Your task to perform on an android device: turn off sleep mode Image 0: 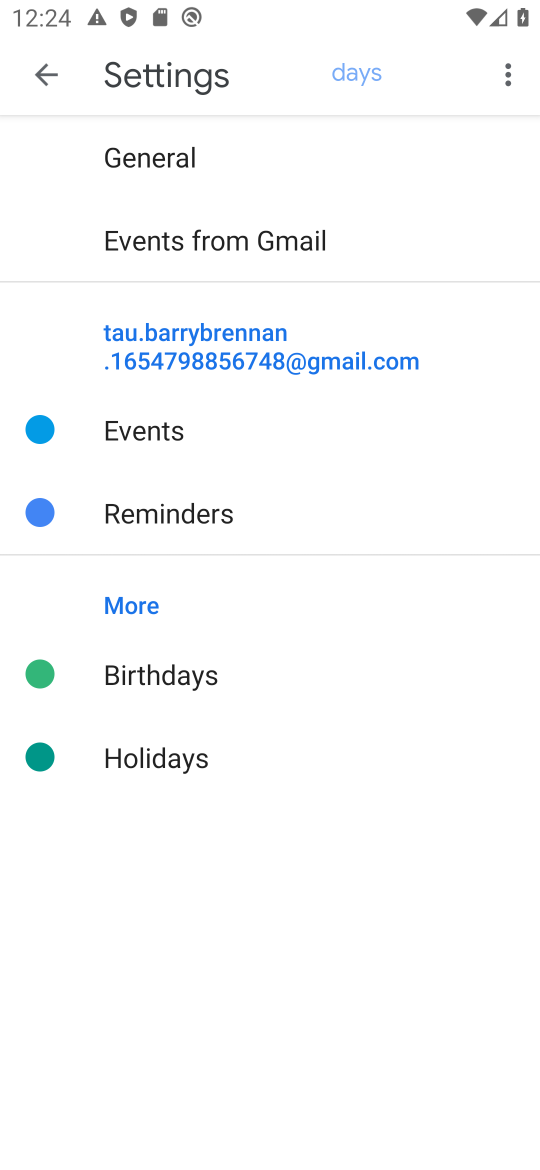
Step 0: press home button
Your task to perform on an android device: turn off sleep mode Image 1: 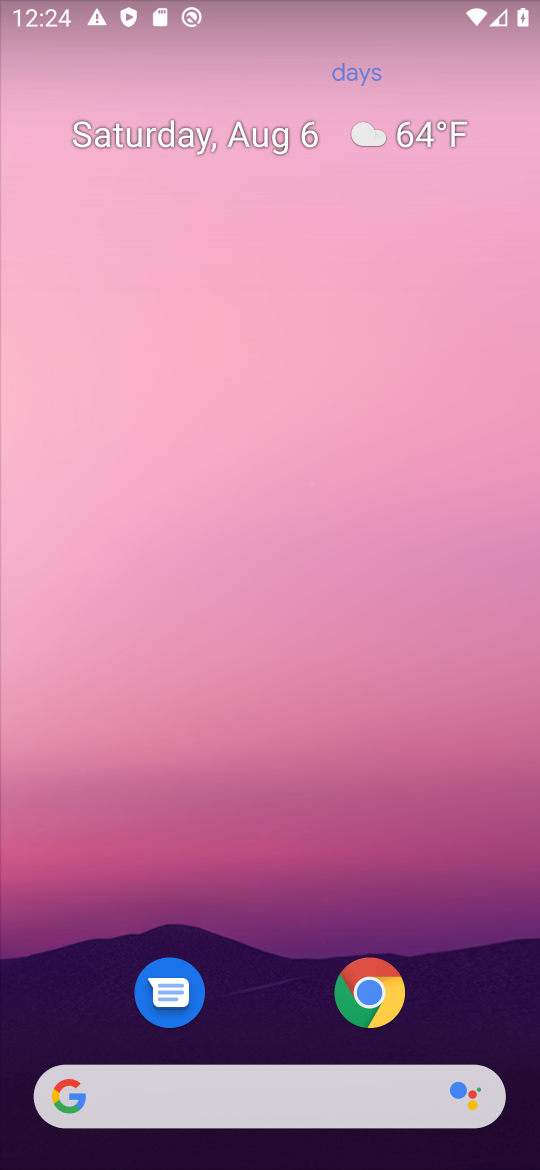
Step 1: drag from (316, 693) to (366, 8)
Your task to perform on an android device: turn off sleep mode Image 2: 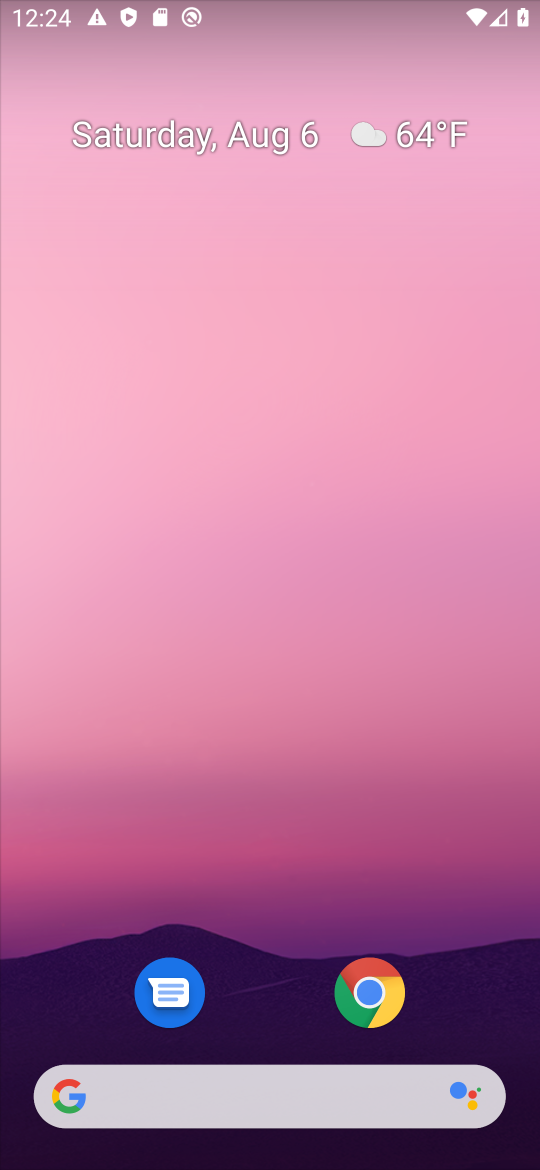
Step 2: drag from (306, 733) to (383, 0)
Your task to perform on an android device: turn off sleep mode Image 3: 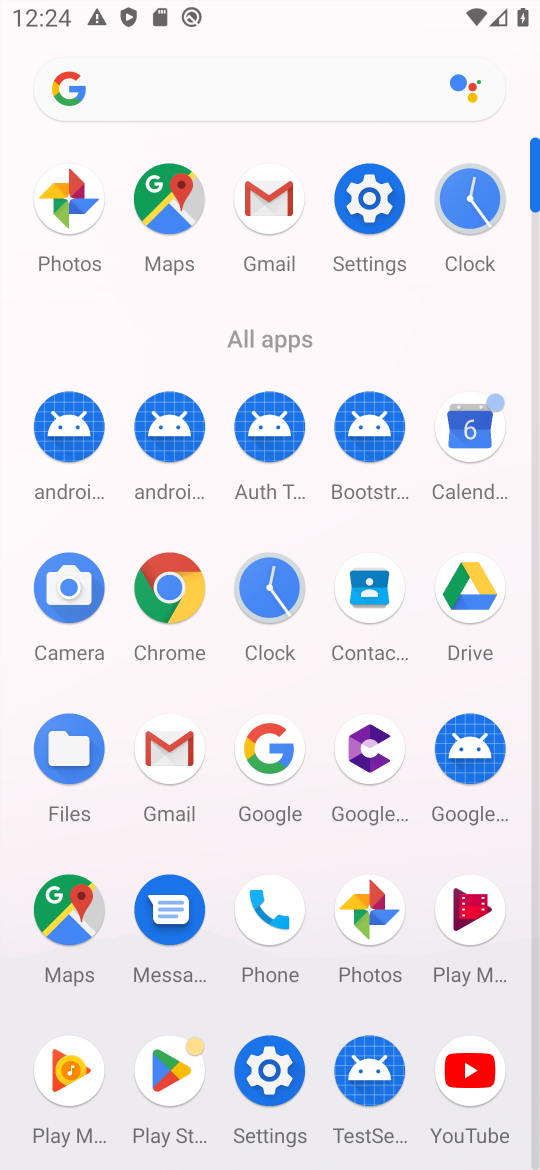
Step 3: click (373, 204)
Your task to perform on an android device: turn off sleep mode Image 4: 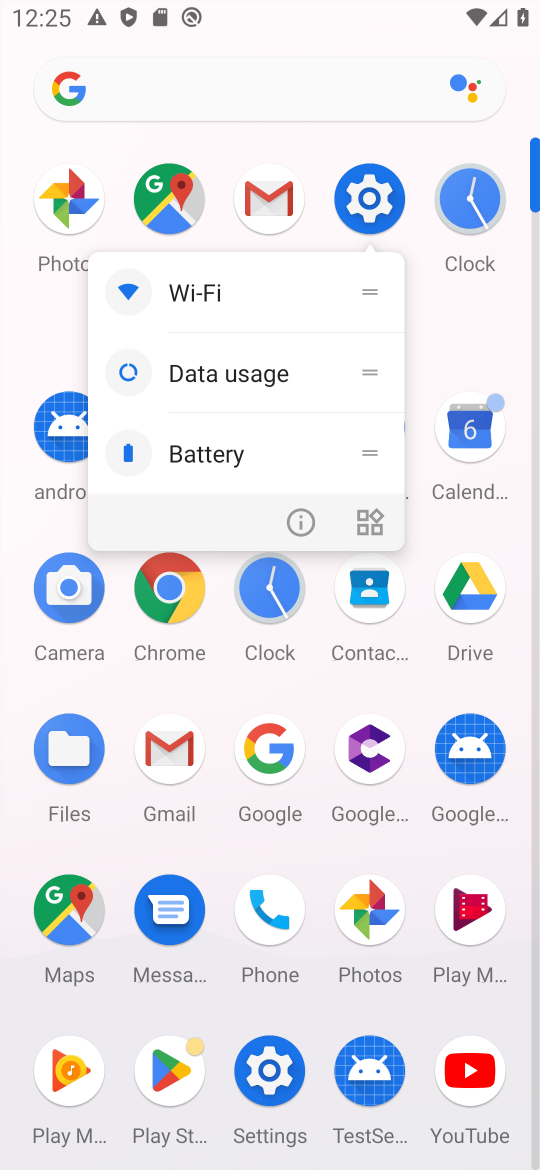
Step 4: click (370, 201)
Your task to perform on an android device: turn off sleep mode Image 5: 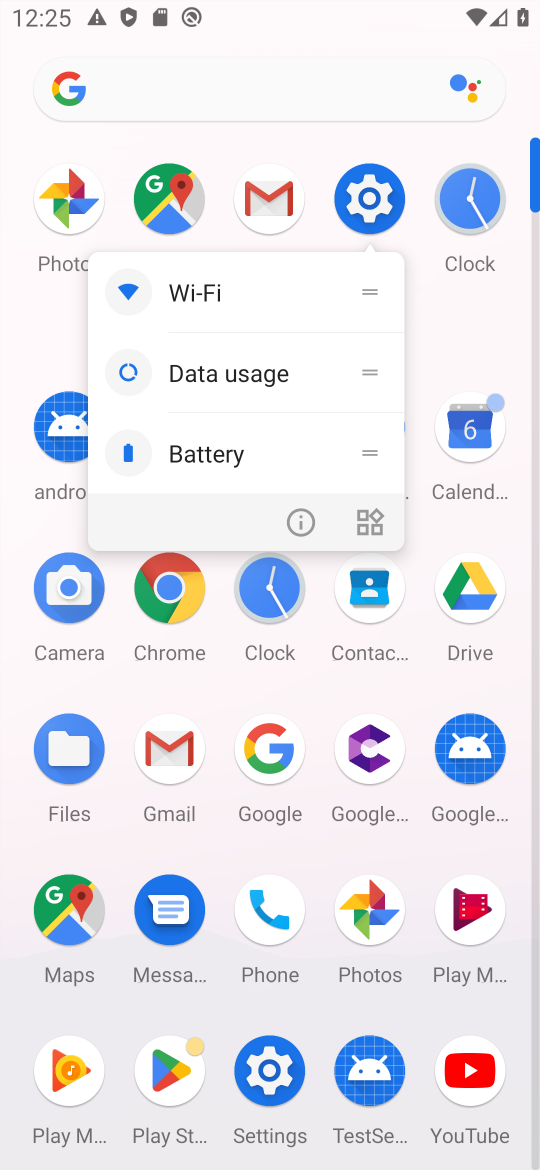
Step 5: click (369, 184)
Your task to perform on an android device: turn off sleep mode Image 6: 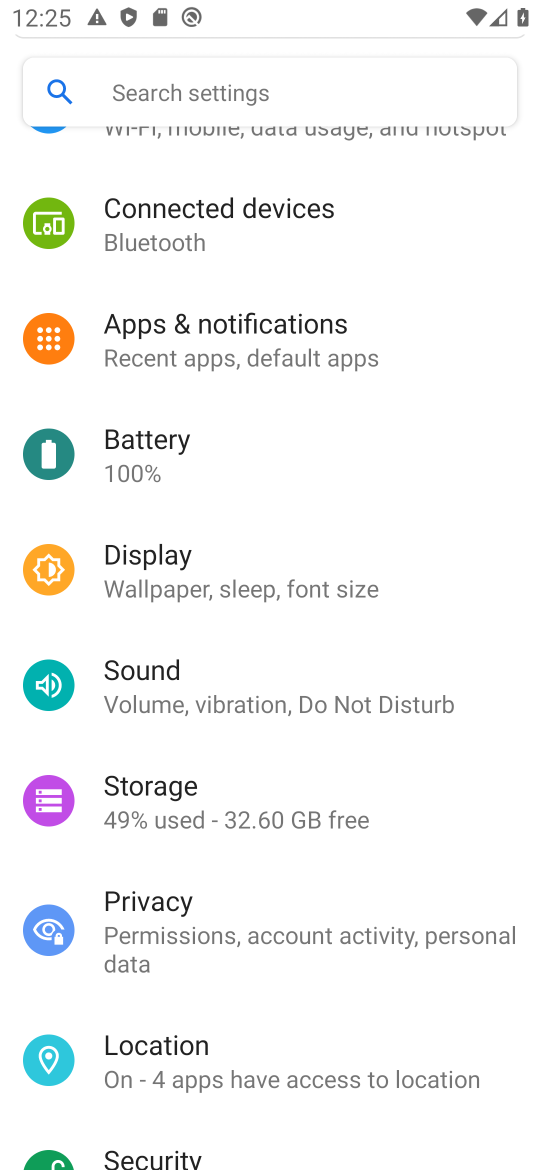
Step 6: drag from (409, 270) to (401, 902)
Your task to perform on an android device: turn off sleep mode Image 7: 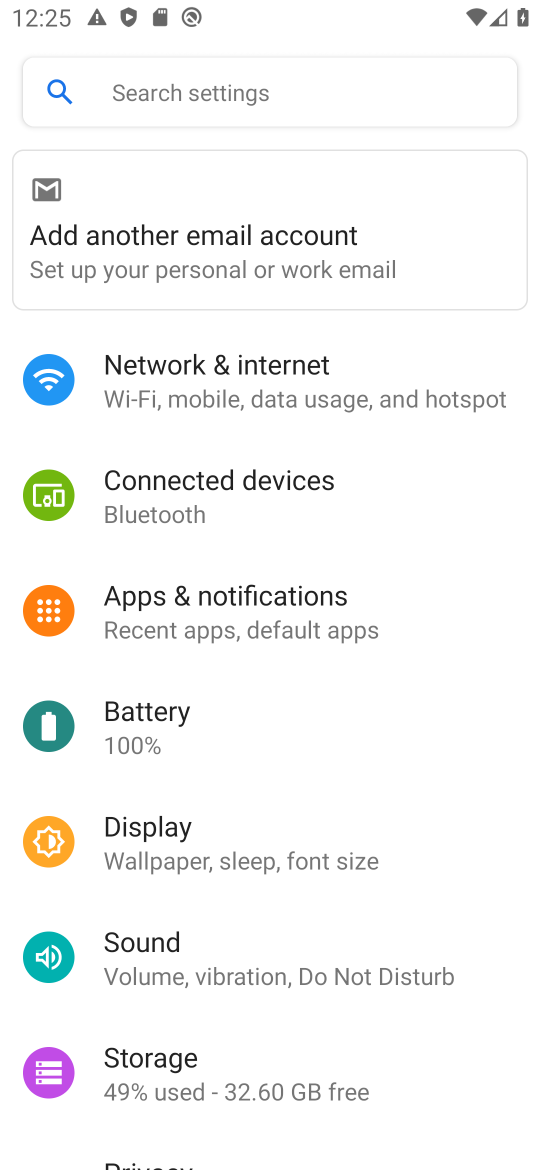
Step 7: click (209, 838)
Your task to perform on an android device: turn off sleep mode Image 8: 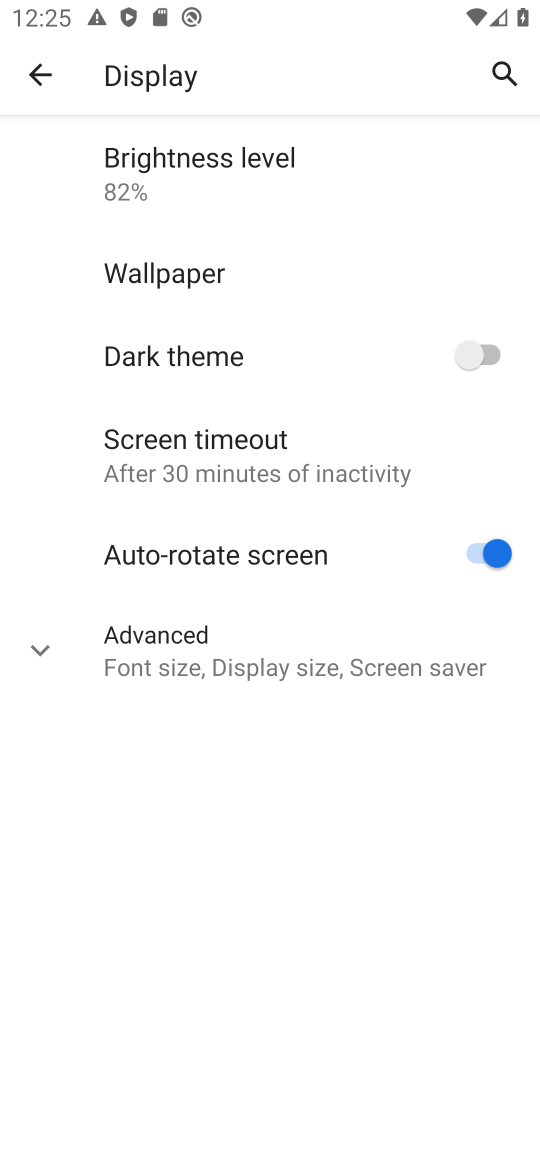
Step 8: task complete